Your task to perform on an android device: turn on showing notifications on the lock screen Image 0: 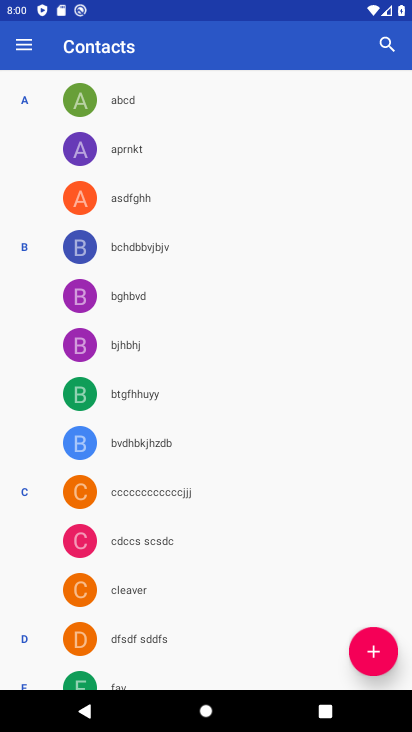
Step 0: press home button
Your task to perform on an android device: turn on showing notifications on the lock screen Image 1: 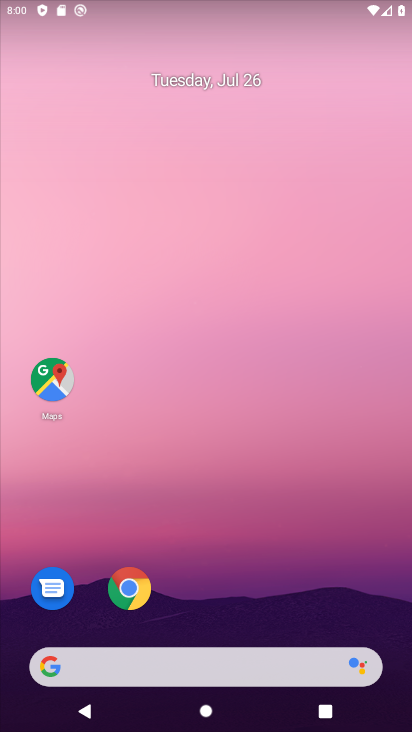
Step 1: drag from (194, 600) to (194, 349)
Your task to perform on an android device: turn on showing notifications on the lock screen Image 2: 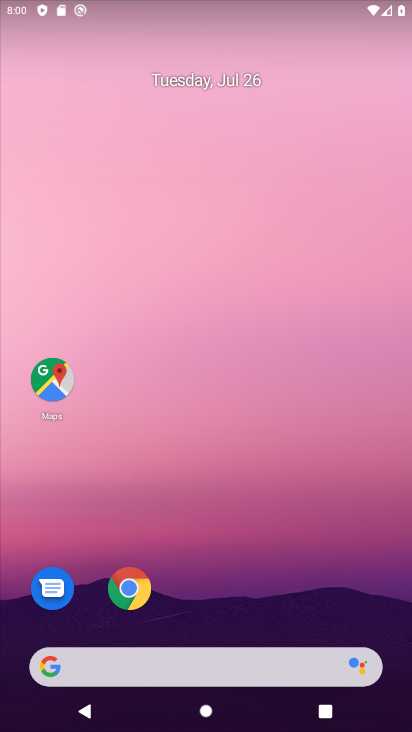
Step 2: drag from (215, 633) to (249, 277)
Your task to perform on an android device: turn on showing notifications on the lock screen Image 3: 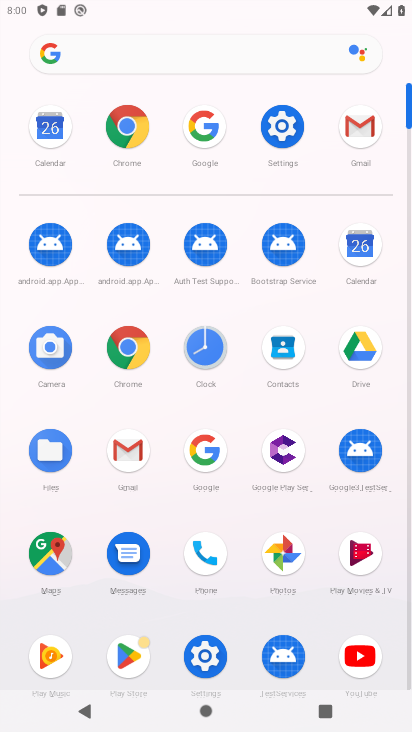
Step 3: click (283, 113)
Your task to perform on an android device: turn on showing notifications on the lock screen Image 4: 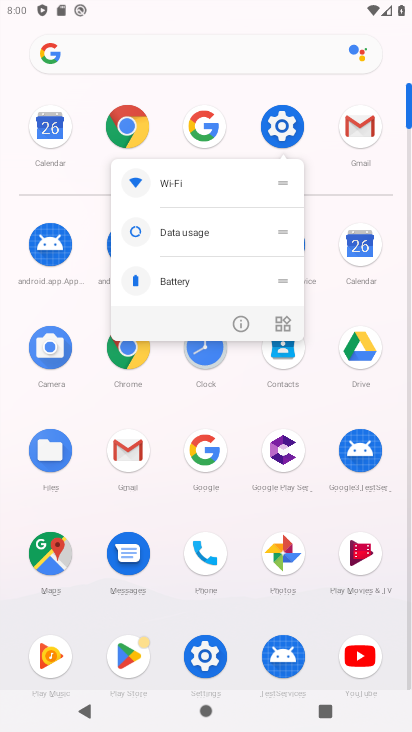
Step 4: click (274, 131)
Your task to perform on an android device: turn on showing notifications on the lock screen Image 5: 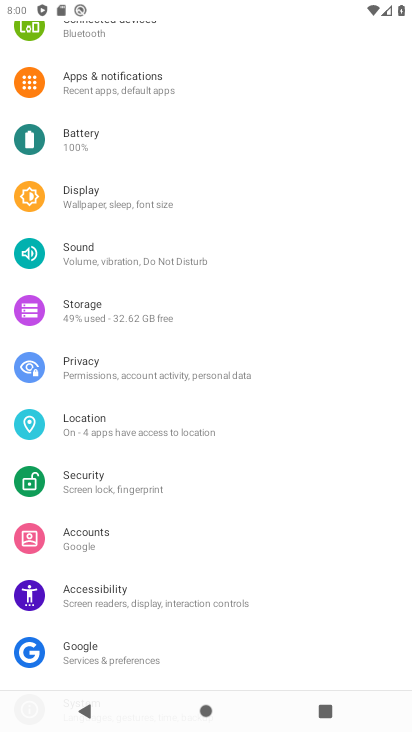
Step 5: click (70, 372)
Your task to perform on an android device: turn on showing notifications on the lock screen Image 6: 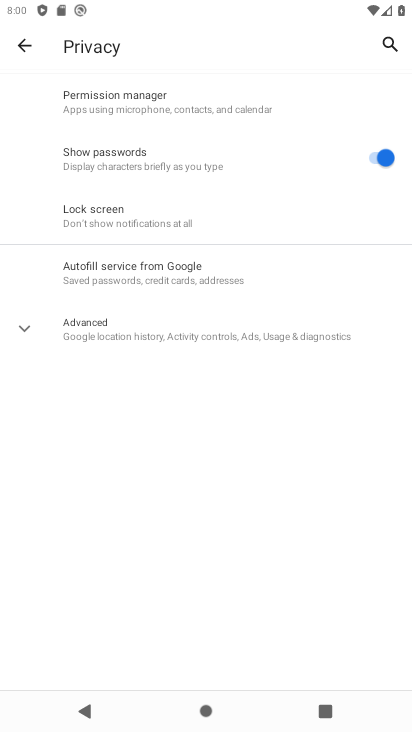
Step 6: click (111, 327)
Your task to perform on an android device: turn on showing notifications on the lock screen Image 7: 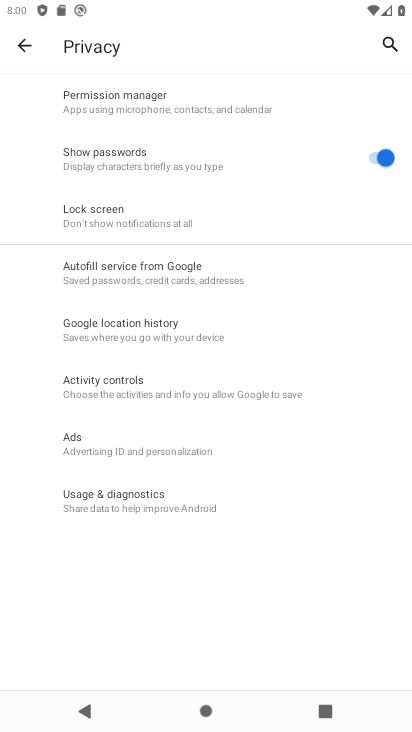
Step 7: click (111, 208)
Your task to perform on an android device: turn on showing notifications on the lock screen Image 8: 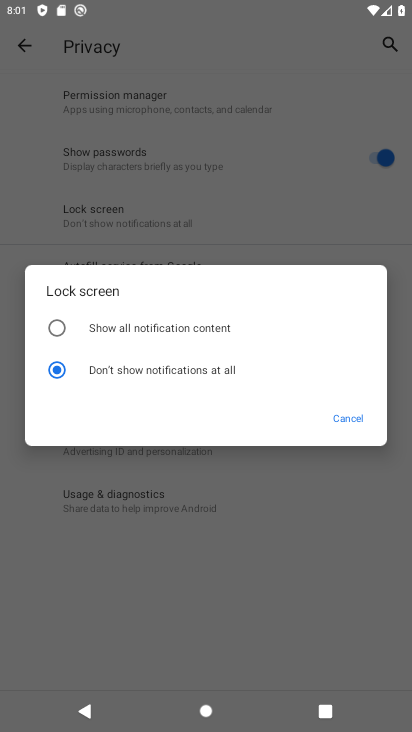
Step 8: click (154, 331)
Your task to perform on an android device: turn on showing notifications on the lock screen Image 9: 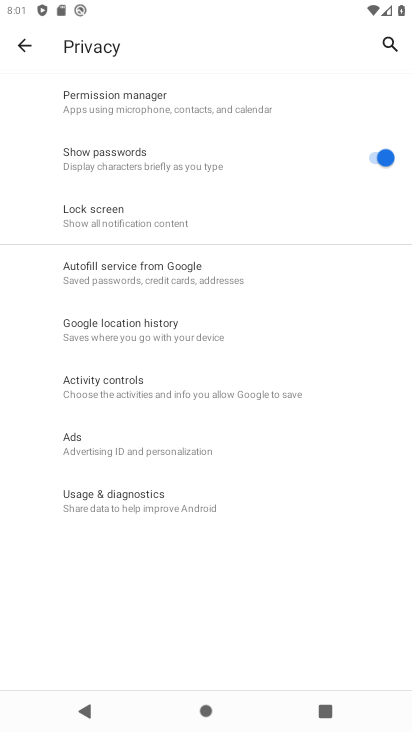
Step 9: task complete